Your task to perform on an android device: find which apps use the phone's location Image 0: 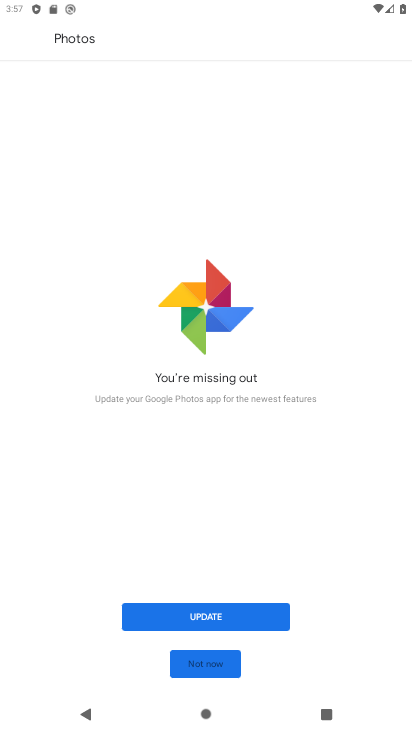
Step 0: press home button
Your task to perform on an android device: find which apps use the phone's location Image 1: 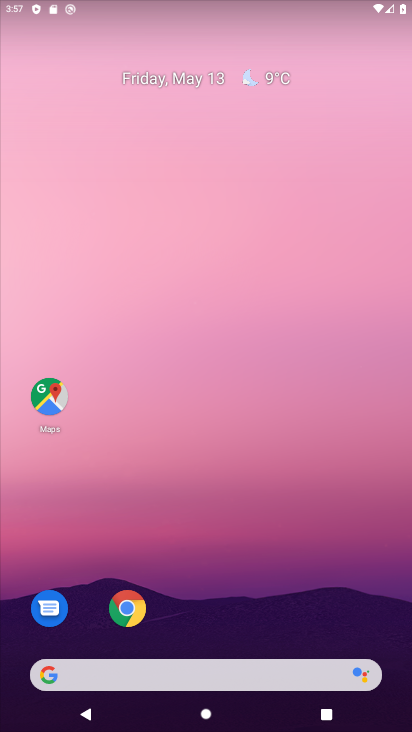
Step 1: drag from (292, 594) to (191, 115)
Your task to perform on an android device: find which apps use the phone's location Image 2: 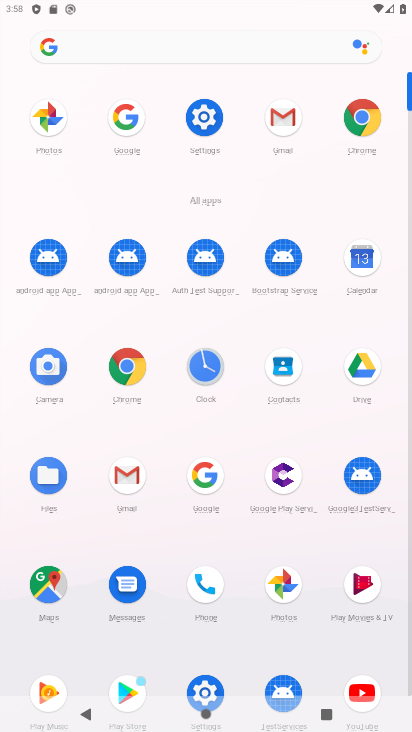
Step 2: click (206, 110)
Your task to perform on an android device: find which apps use the phone's location Image 3: 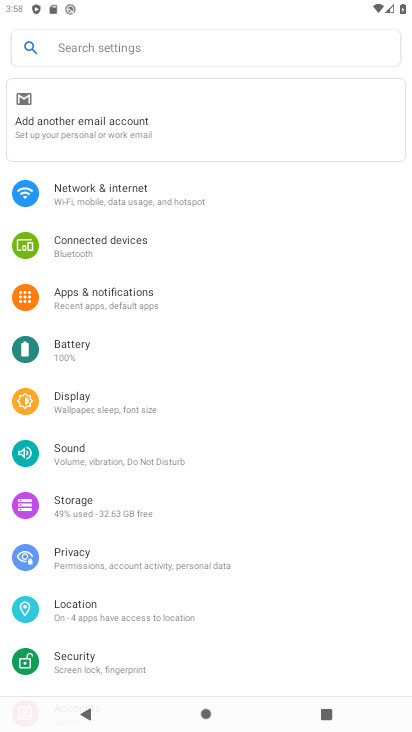
Step 3: click (111, 604)
Your task to perform on an android device: find which apps use the phone's location Image 4: 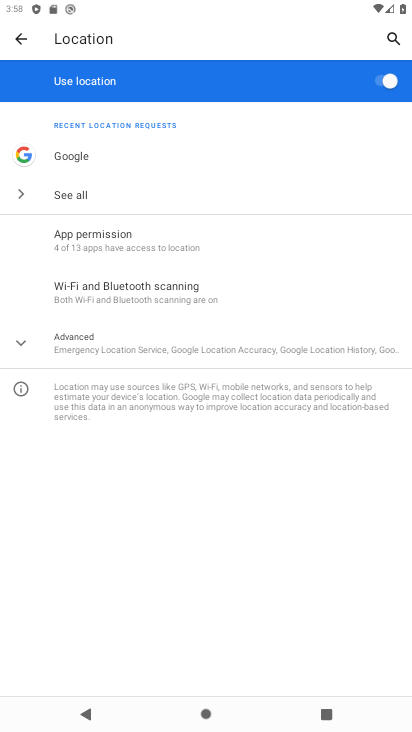
Step 4: click (118, 244)
Your task to perform on an android device: find which apps use the phone's location Image 5: 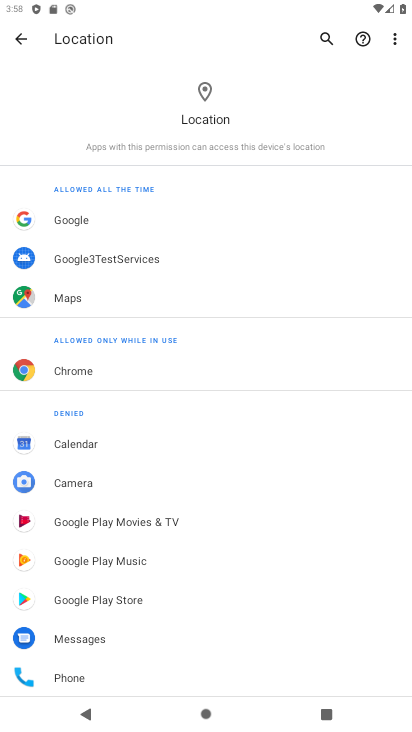
Step 5: task complete